Your task to perform on an android device: turn off location Image 0: 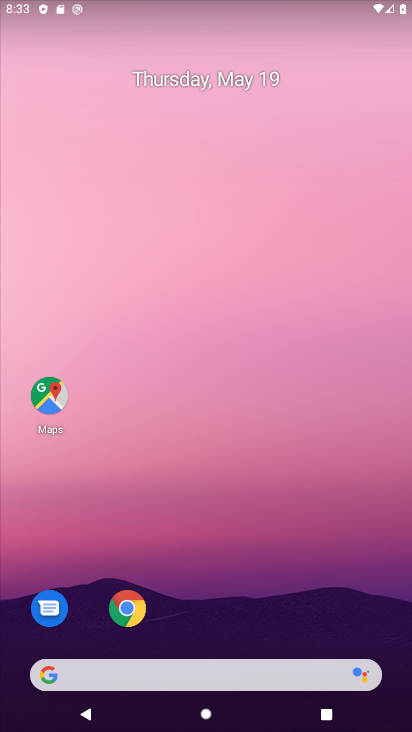
Step 0: drag from (227, 619) to (153, 0)
Your task to perform on an android device: turn off location Image 1: 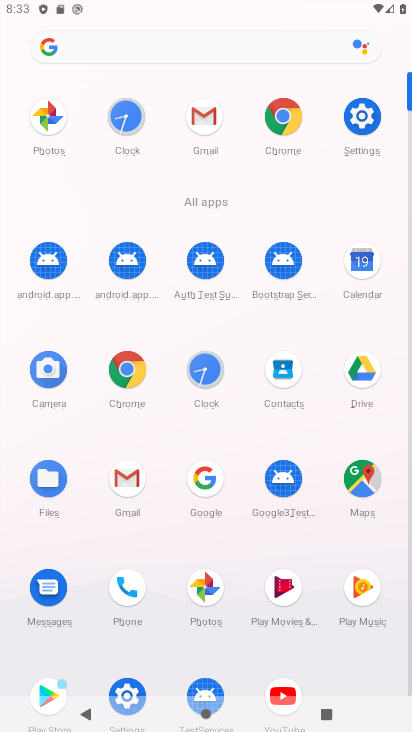
Step 1: click (358, 118)
Your task to perform on an android device: turn off location Image 2: 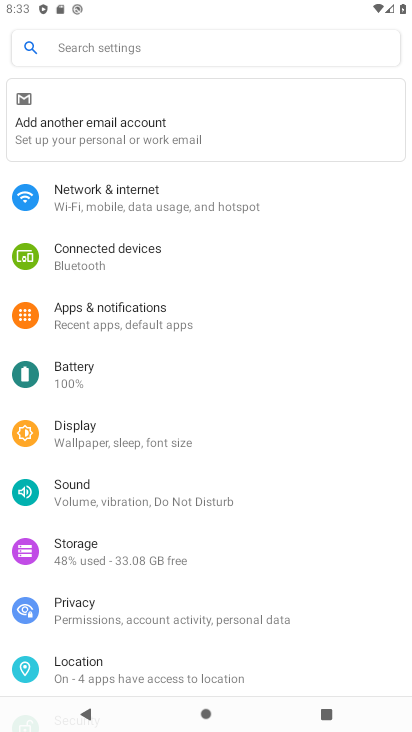
Step 2: click (120, 669)
Your task to perform on an android device: turn off location Image 3: 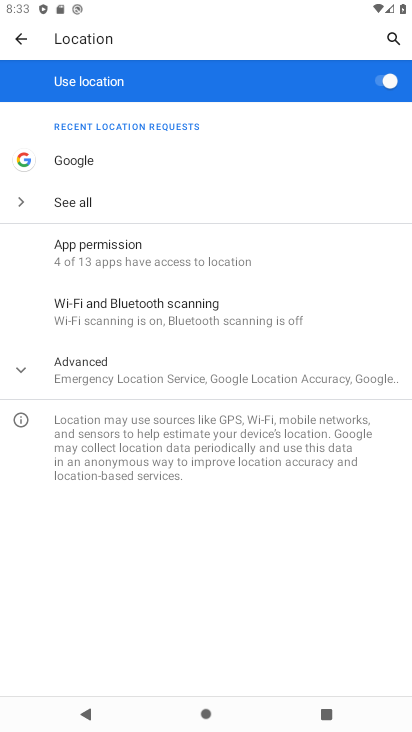
Step 3: click (375, 83)
Your task to perform on an android device: turn off location Image 4: 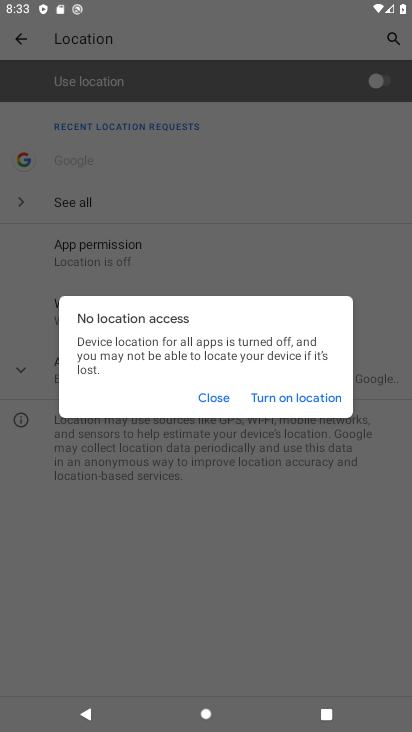
Step 4: task complete